Your task to perform on an android device: What is the news today? Image 0: 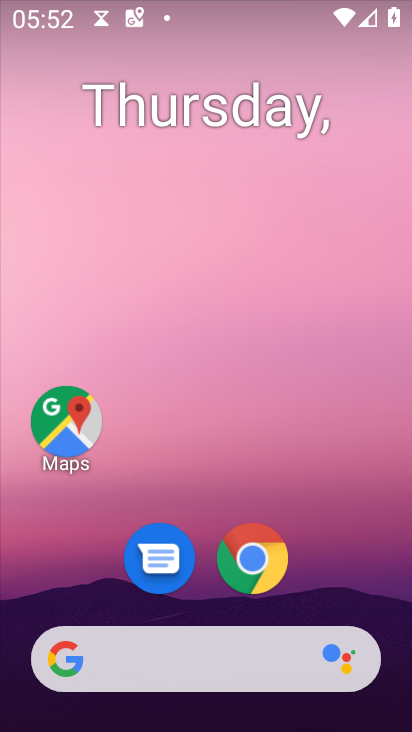
Step 0: drag from (306, 552) to (314, 125)
Your task to perform on an android device: What is the news today? Image 1: 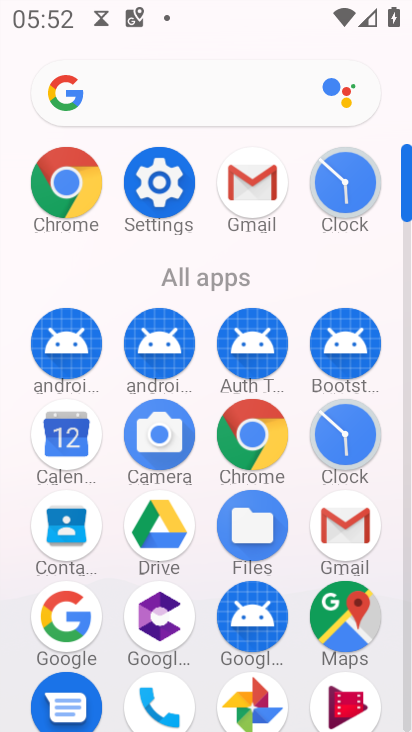
Step 1: click (64, 622)
Your task to perform on an android device: What is the news today? Image 2: 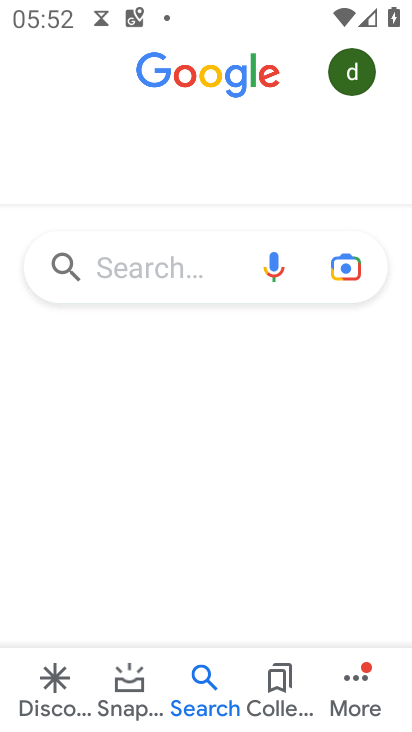
Step 2: click (162, 268)
Your task to perform on an android device: What is the news today? Image 3: 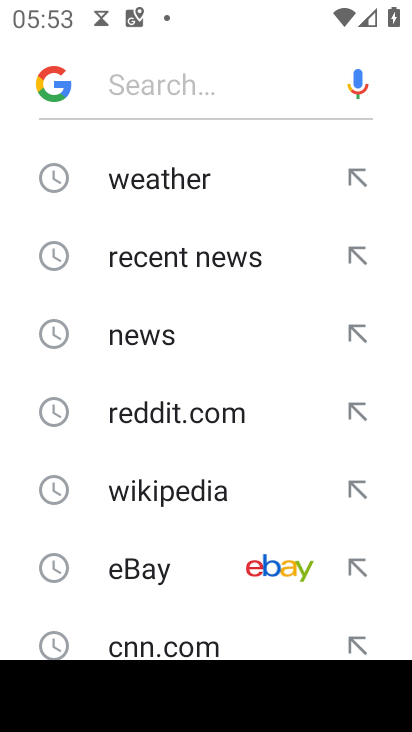
Step 3: type "news today"
Your task to perform on an android device: What is the news today? Image 4: 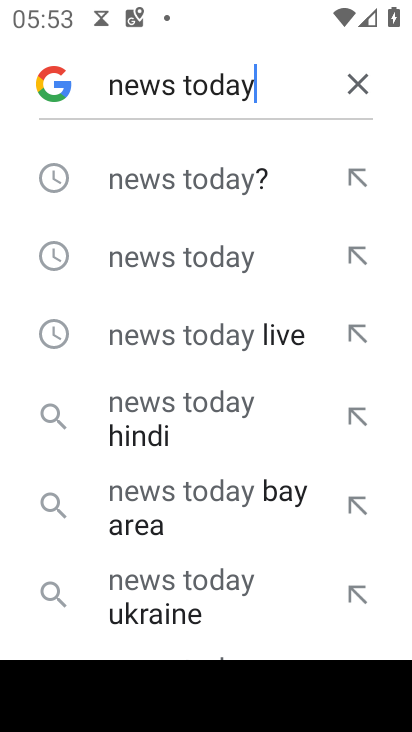
Step 4: click (207, 262)
Your task to perform on an android device: What is the news today? Image 5: 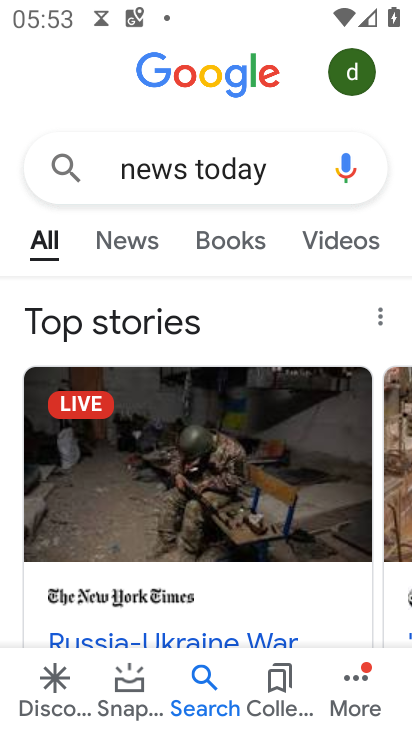
Step 5: task complete